Your task to perform on an android device: Open calendar and show me the fourth week of next month Image 0: 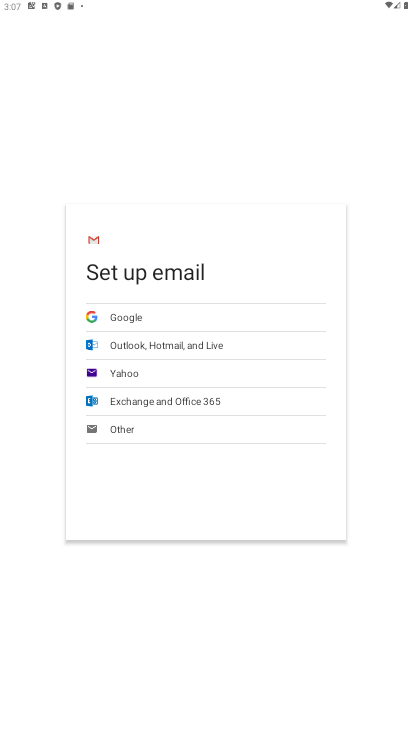
Step 0: press home button
Your task to perform on an android device: Open calendar and show me the fourth week of next month Image 1: 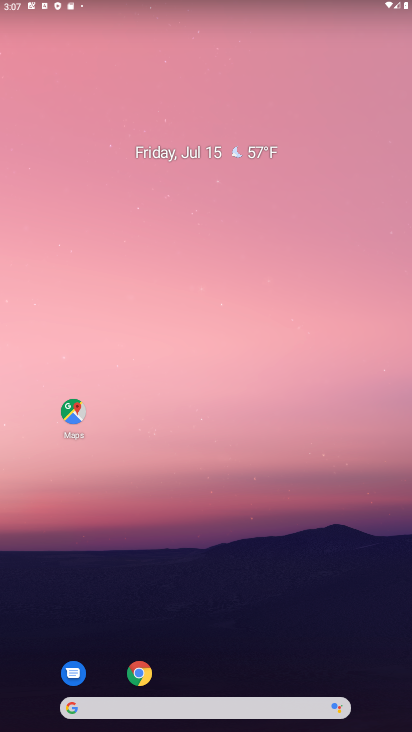
Step 1: drag from (372, 663) to (328, 134)
Your task to perform on an android device: Open calendar and show me the fourth week of next month Image 2: 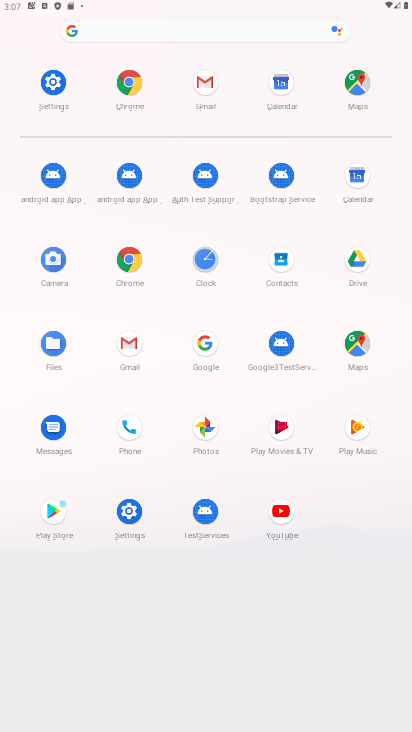
Step 2: click (357, 177)
Your task to perform on an android device: Open calendar and show me the fourth week of next month Image 3: 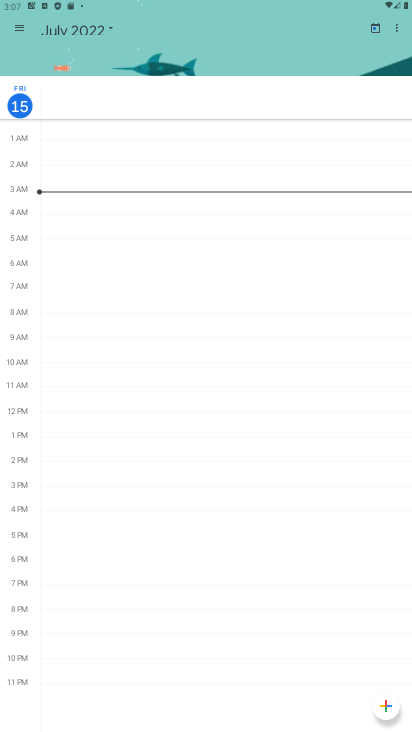
Step 3: click (16, 31)
Your task to perform on an android device: Open calendar and show me the fourth week of next month Image 4: 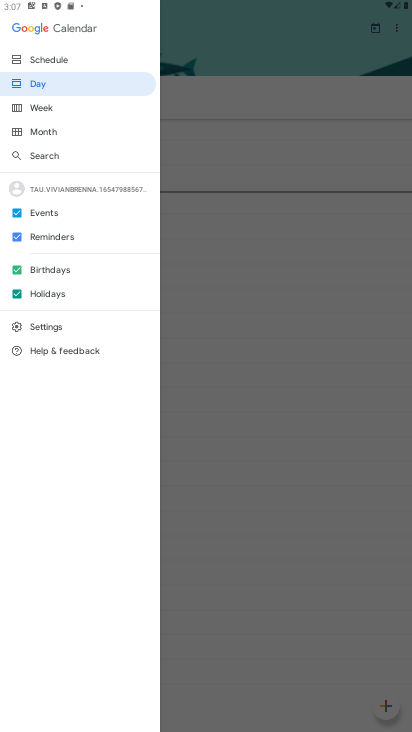
Step 4: click (41, 101)
Your task to perform on an android device: Open calendar and show me the fourth week of next month Image 5: 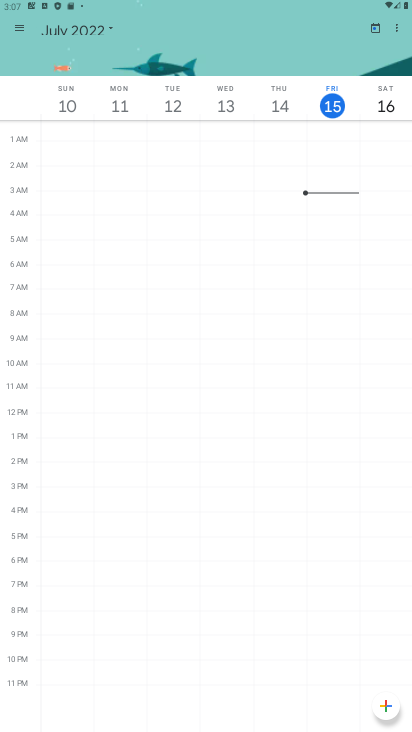
Step 5: click (103, 28)
Your task to perform on an android device: Open calendar and show me the fourth week of next month Image 6: 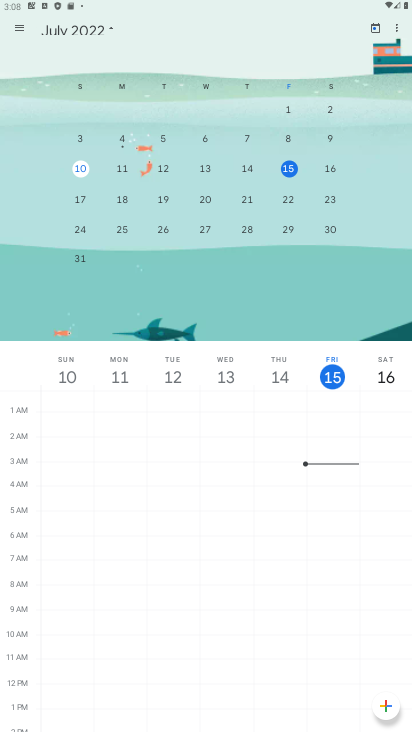
Step 6: click (77, 231)
Your task to perform on an android device: Open calendar and show me the fourth week of next month Image 7: 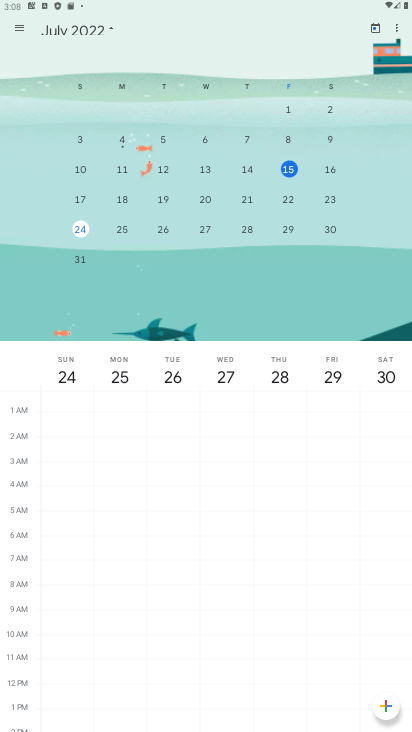
Step 7: click (107, 30)
Your task to perform on an android device: Open calendar and show me the fourth week of next month Image 8: 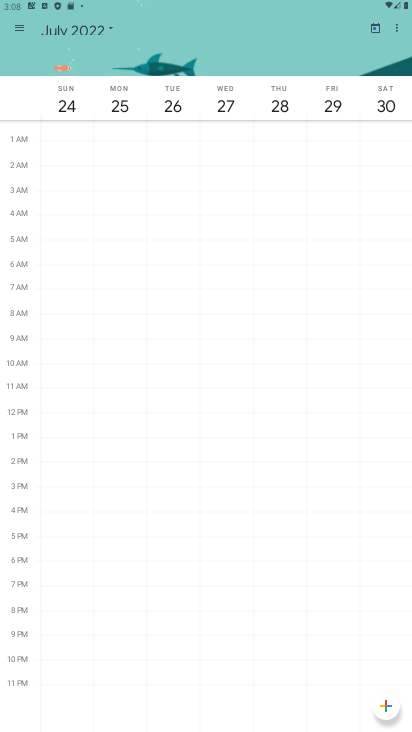
Step 8: click (111, 30)
Your task to perform on an android device: Open calendar and show me the fourth week of next month Image 9: 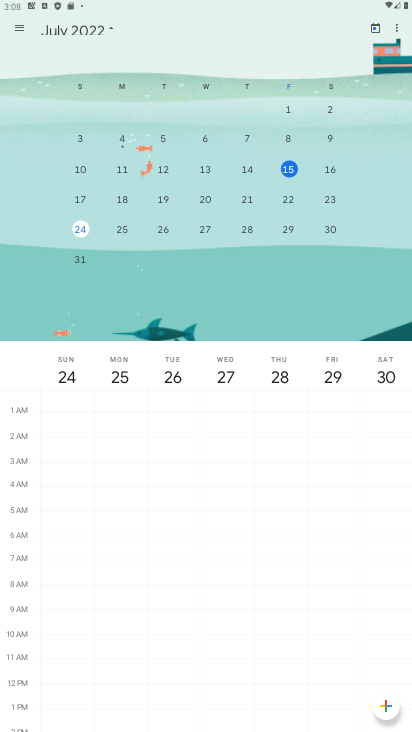
Step 9: drag from (336, 198) to (56, 197)
Your task to perform on an android device: Open calendar and show me the fourth week of next month Image 10: 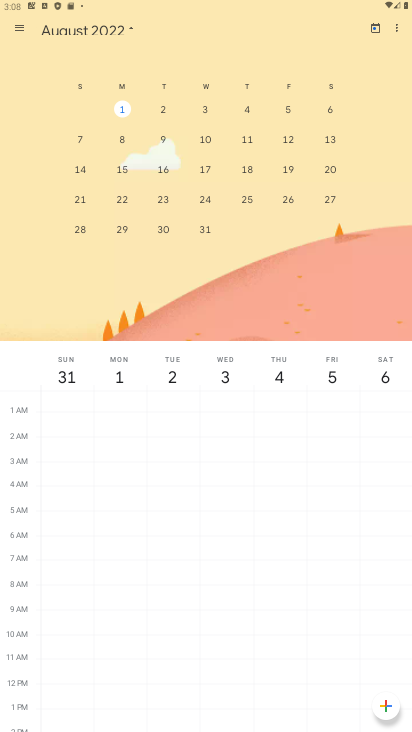
Step 10: click (76, 229)
Your task to perform on an android device: Open calendar and show me the fourth week of next month Image 11: 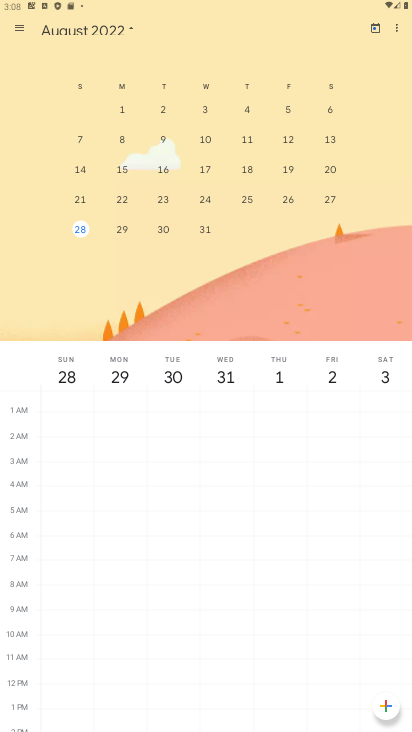
Step 11: task complete